Your task to perform on an android device: Go to eBay Image 0: 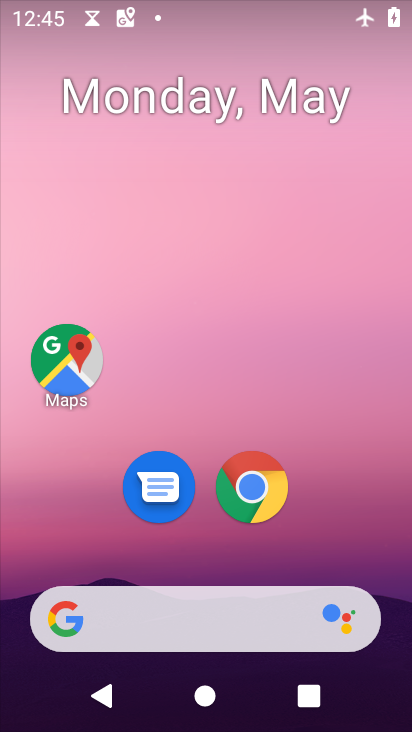
Step 0: click (250, 479)
Your task to perform on an android device: Go to eBay Image 1: 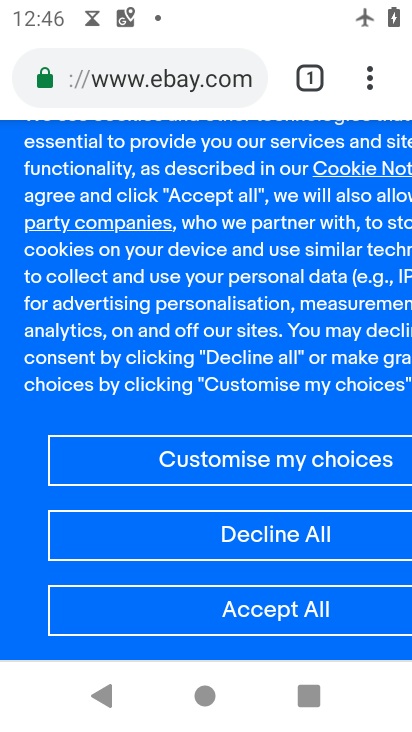
Step 1: task complete